Your task to perform on an android device: Open eBay Image 0: 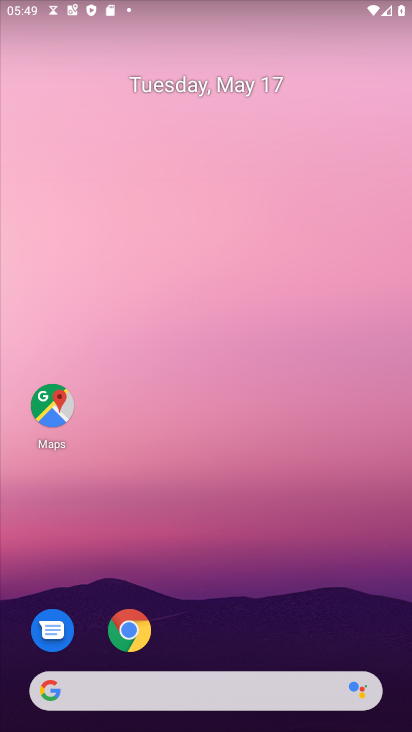
Step 0: click (131, 630)
Your task to perform on an android device: Open eBay Image 1: 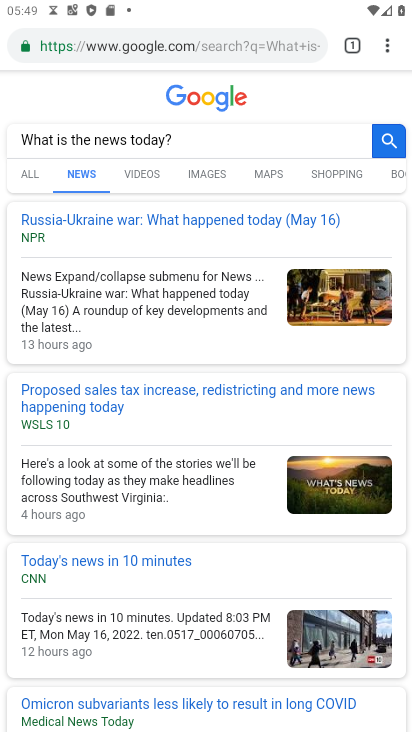
Step 1: click (174, 142)
Your task to perform on an android device: Open eBay Image 2: 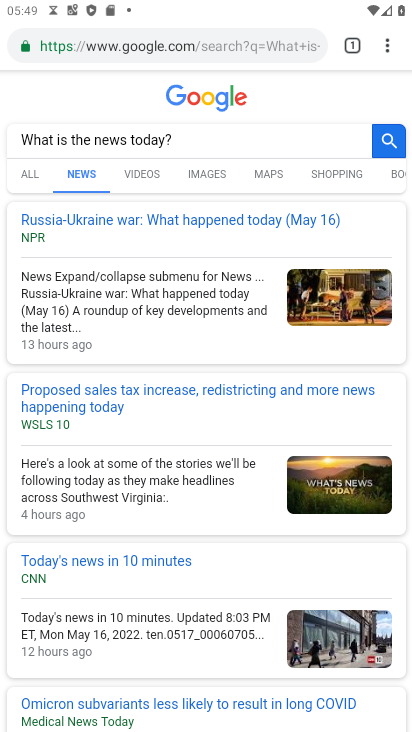
Step 2: click (174, 142)
Your task to perform on an android device: Open eBay Image 3: 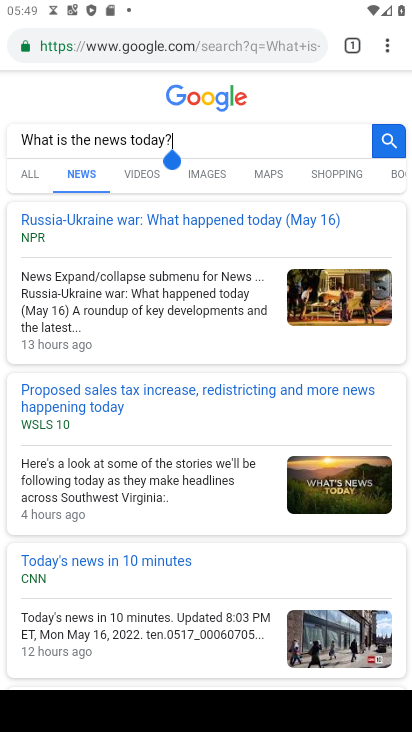
Step 3: click (309, 39)
Your task to perform on an android device: Open eBay Image 4: 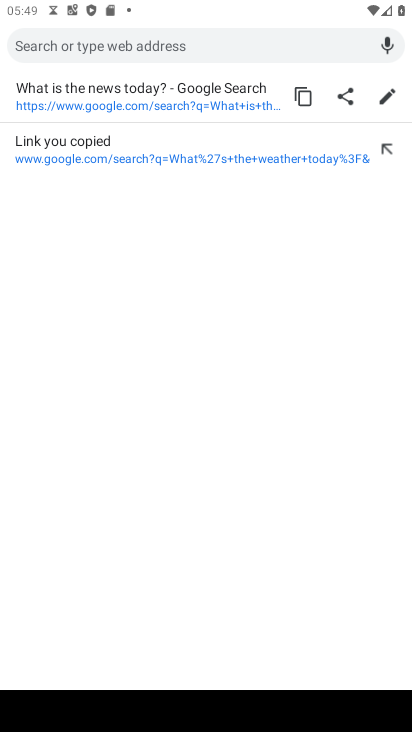
Step 4: type " eBay"
Your task to perform on an android device: Open eBay Image 5: 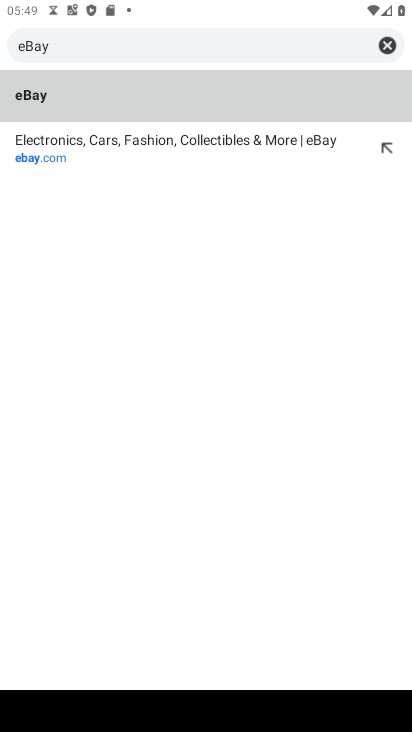
Step 5: click (29, 102)
Your task to perform on an android device: Open eBay Image 6: 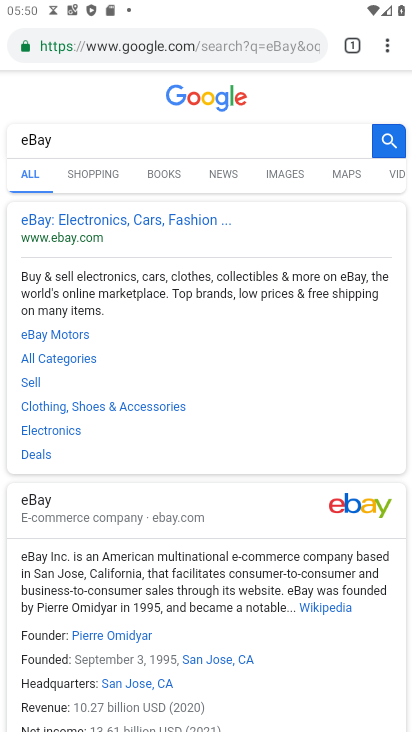
Step 6: task complete